Your task to perform on an android device: turn on showing notifications on the lock screen Image 0: 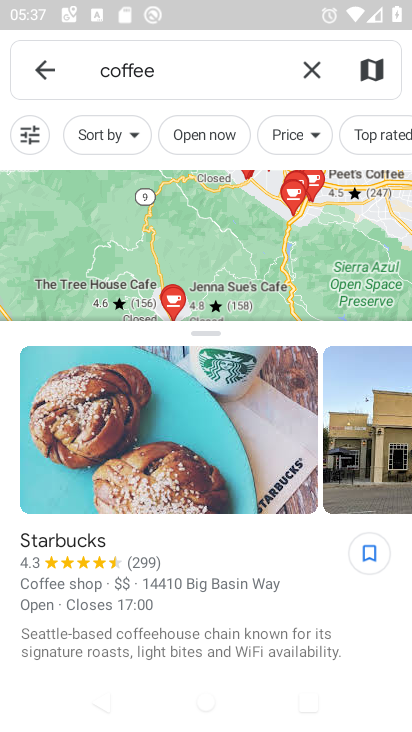
Step 0: press home button
Your task to perform on an android device: turn on showing notifications on the lock screen Image 1: 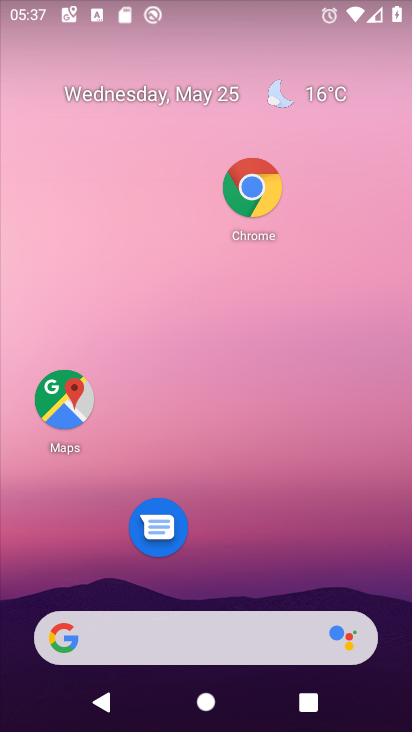
Step 1: drag from (332, 559) to (330, 15)
Your task to perform on an android device: turn on showing notifications on the lock screen Image 2: 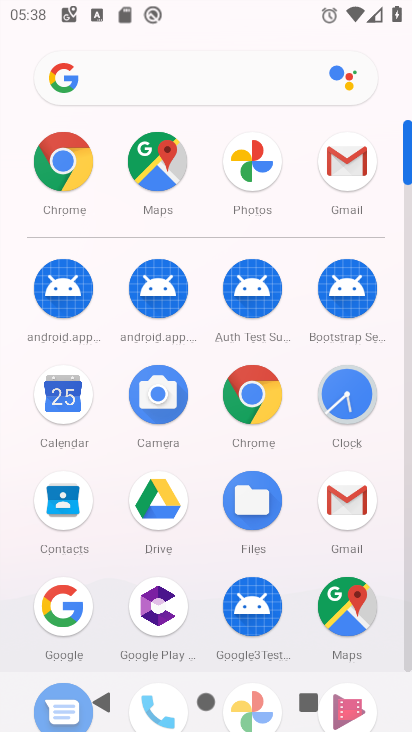
Step 2: drag from (277, 493) to (309, 62)
Your task to perform on an android device: turn on showing notifications on the lock screen Image 3: 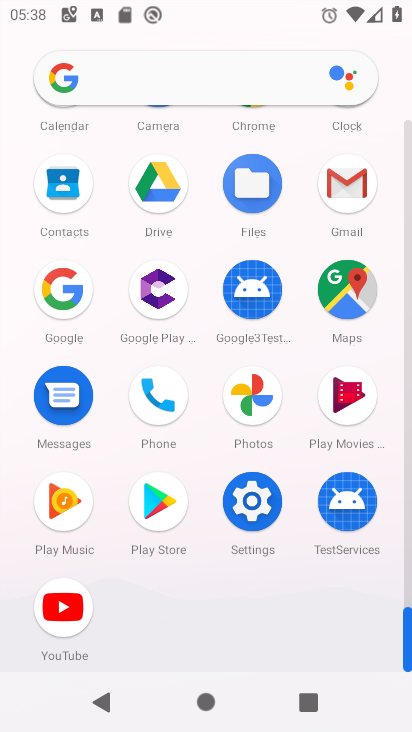
Step 3: click (246, 509)
Your task to perform on an android device: turn on showing notifications on the lock screen Image 4: 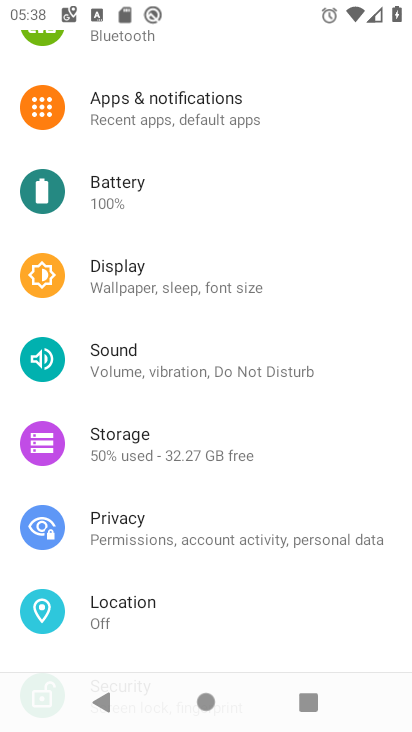
Step 4: click (215, 98)
Your task to perform on an android device: turn on showing notifications on the lock screen Image 5: 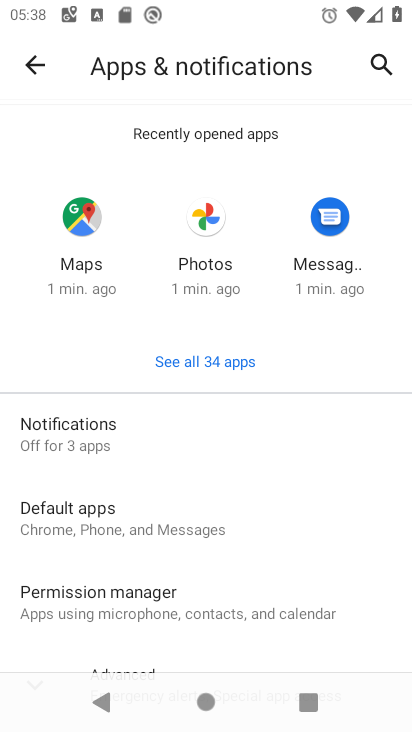
Step 5: click (135, 444)
Your task to perform on an android device: turn on showing notifications on the lock screen Image 6: 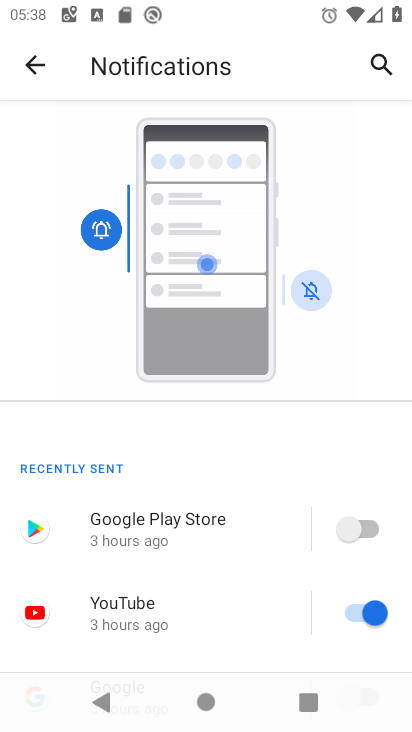
Step 6: drag from (117, 622) to (140, 82)
Your task to perform on an android device: turn on showing notifications on the lock screen Image 7: 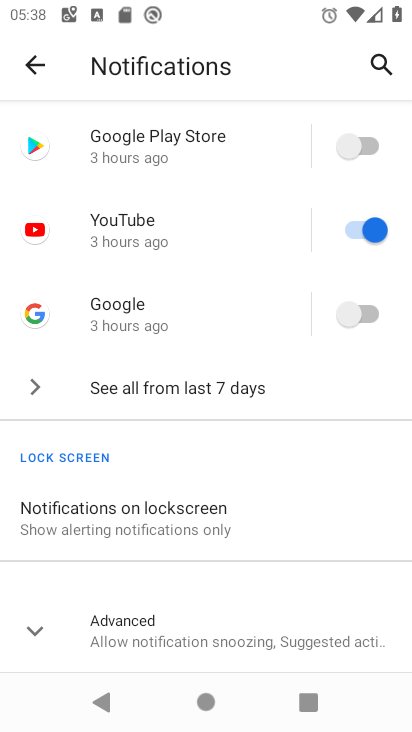
Step 7: click (190, 533)
Your task to perform on an android device: turn on showing notifications on the lock screen Image 8: 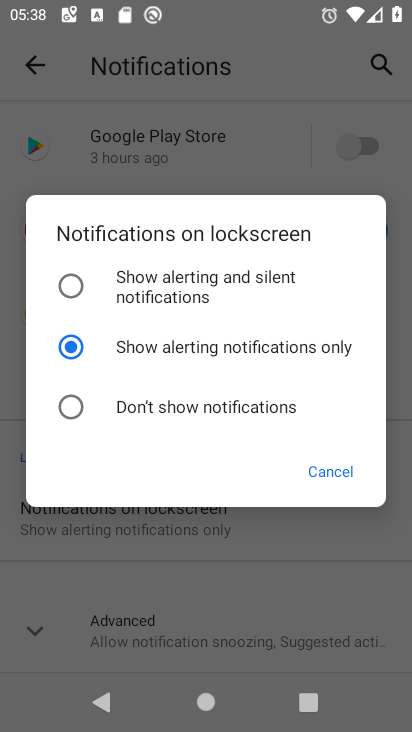
Step 8: click (75, 284)
Your task to perform on an android device: turn on showing notifications on the lock screen Image 9: 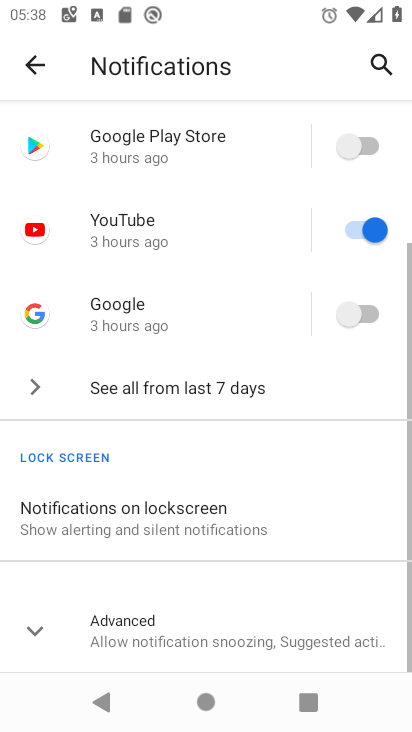
Step 9: task complete